Your task to perform on an android device: When is my next meeting? Image 0: 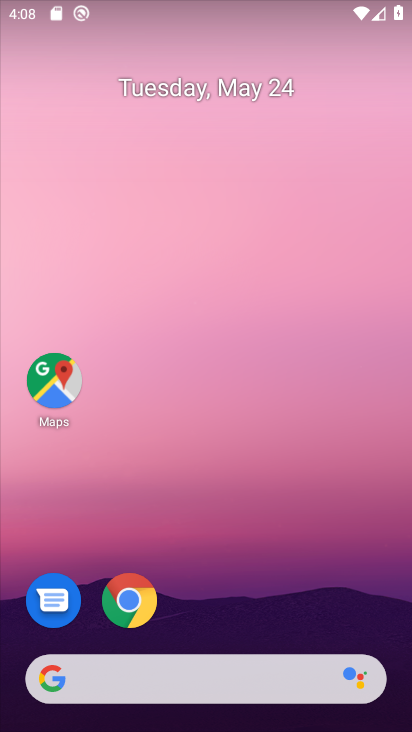
Step 0: drag from (216, 642) to (367, 42)
Your task to perform on an android device: When is my next meeting? Image 1: 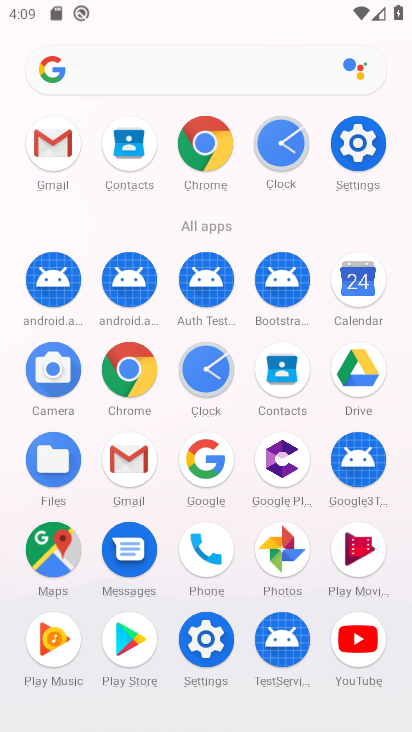
Step 1: click (357, 288)
Your task to perform on an android device: When is my next meeting? Image 2: 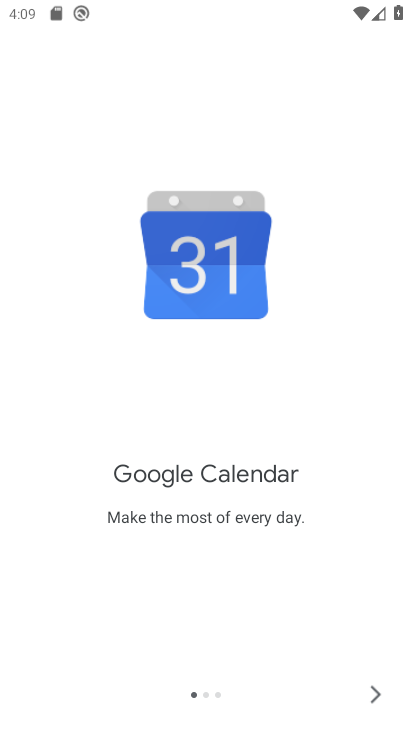
Step 2: click (375, 694)
Your task to perform on an android device: When is my next meeting? Image 3: 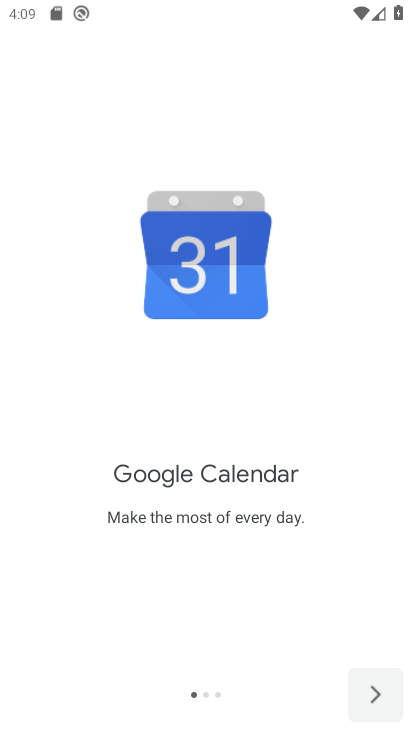
Step 3: click (375, 694)
Your task to perform on an android device: When is my next meeting? Image 4: 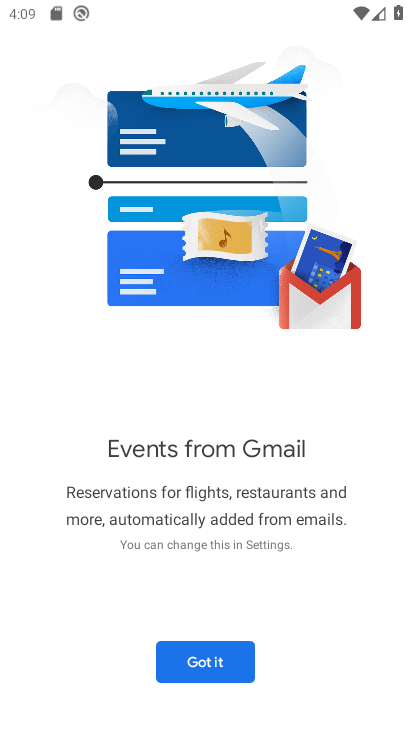
Step 4: click (375, 694)
Your task to perform on an android device: When is my next meeting? Image 5: 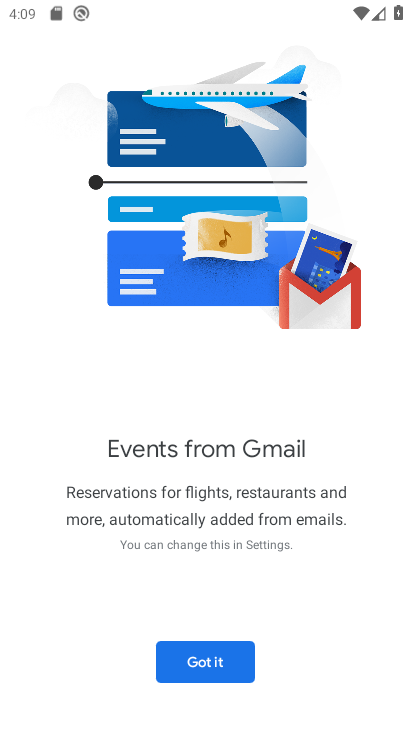
Step 5: click (216, 654)
Your task to perform on an android device: When is my next meeting? Image 6: 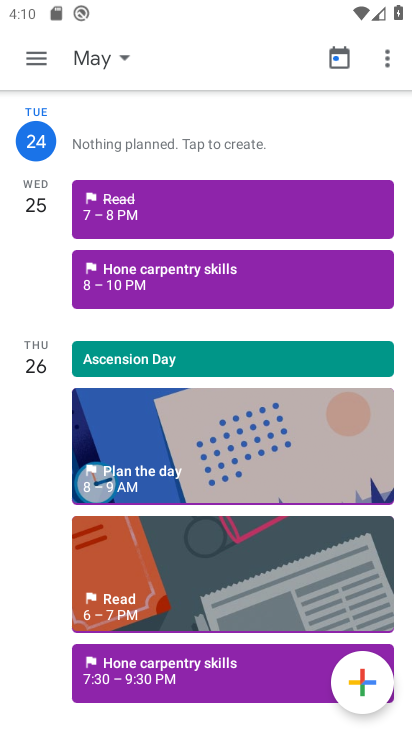
Step 6: task complete